Your task to perform on an android device: Open my contact list Image 0: 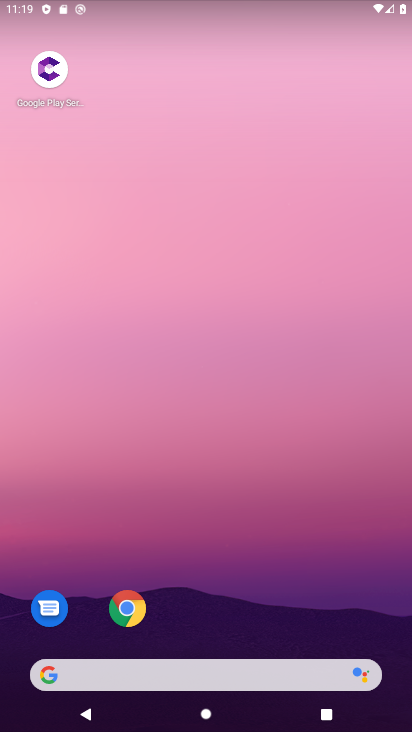
Step 0: drag from (342, 611) to (365, 334)
Your task to perform on an android device: Open my contact list Image 1: 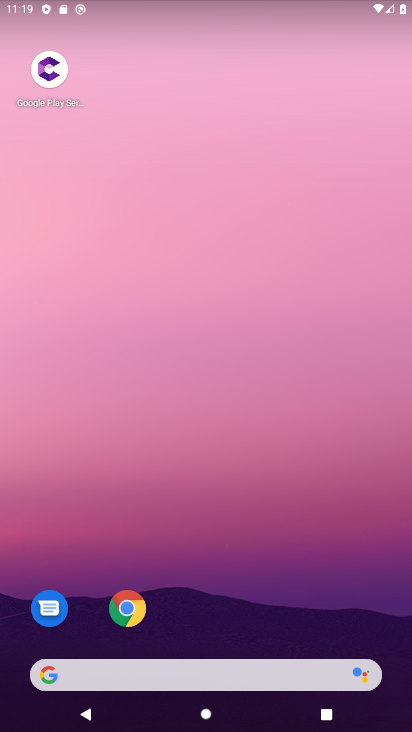
Step 1: drag from (368, 568) to (373, 253)
Your task to perform on an android device: Open my contact list Image 2: 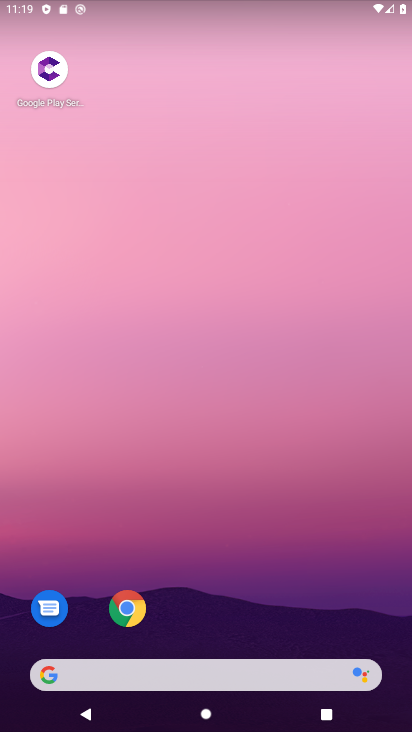
Step 2: drag from (337, 600) to (344, 238)
Your task to perform on an android device: Open my contact list Image 3: 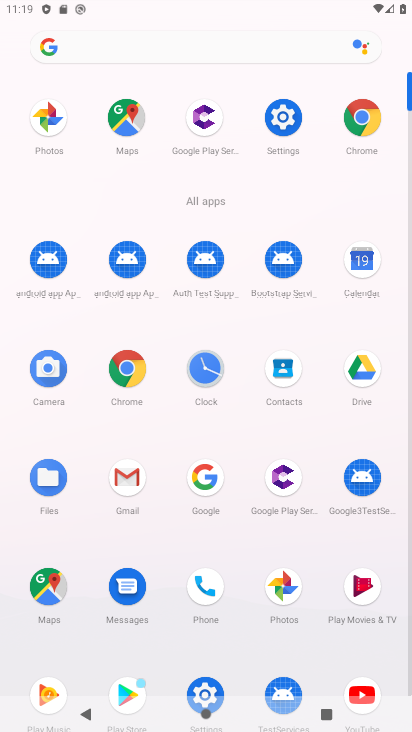
Step 3: click (302, 386)
Your task to perform on an android device: Open my contact list Image 4: 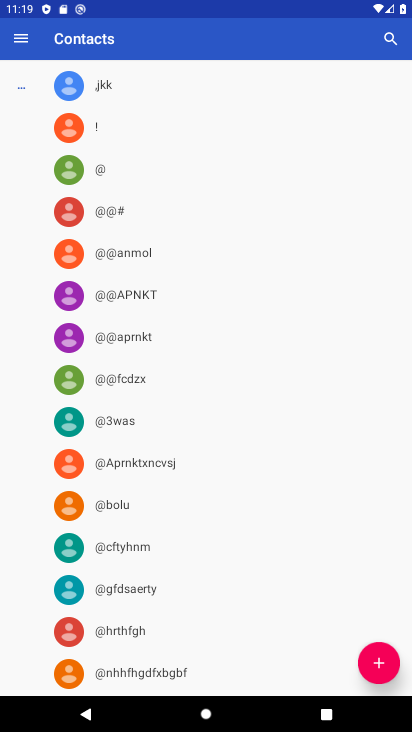
Step 4: task complete